Your task to perform on an android device: turn on improve location accuracy Image 0: 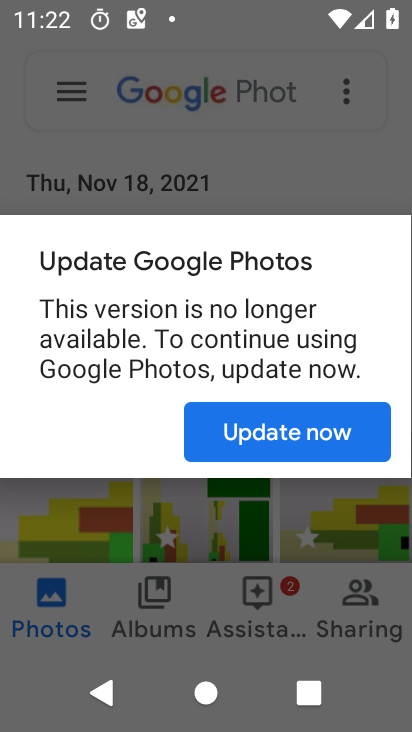
Step 0: press home button
Your task to perform on an android device: turn on improve location accuracy Image 1: 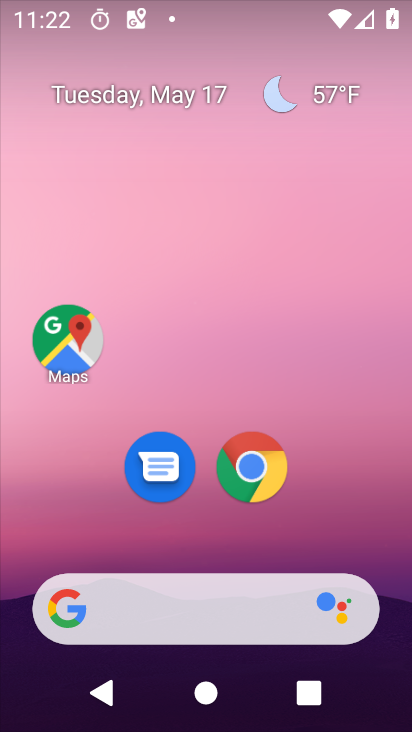
Step 1: drag from (196, 580) to (196, 250)
Your task to perform on an android device: turn on improve location accuracy Image 2: 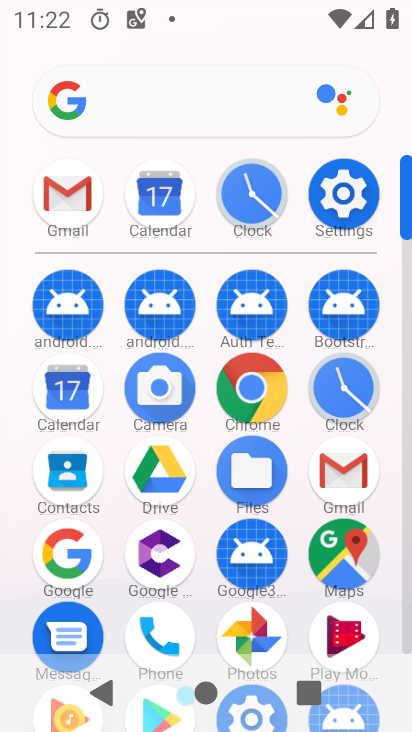
Step 2: click (324, 186)
Your task to perform on an android device: turn on improve location accuracy Image 3: 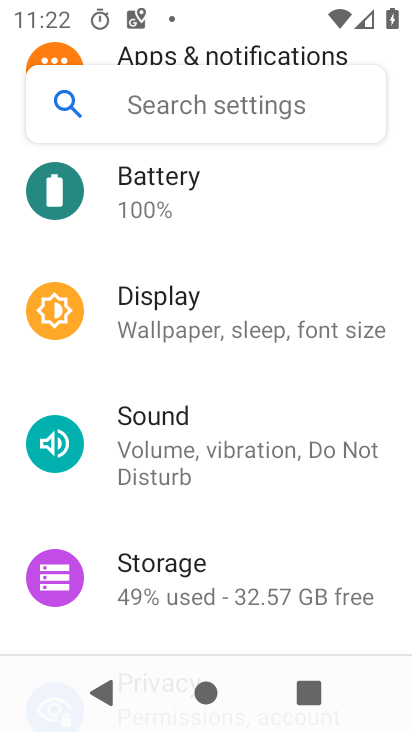
Step 3: drag from (198, 612) to (196, 273)
Your task to perform on an android device: turn on improve location accuracy Image 4: 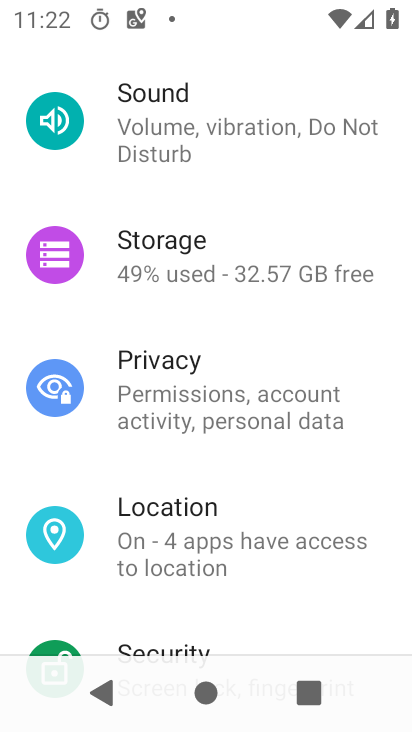
Step 4: drag from (155, 638) to (154, 304)
Your task to perform on an android device: turn on improve location accuracy Image 5: 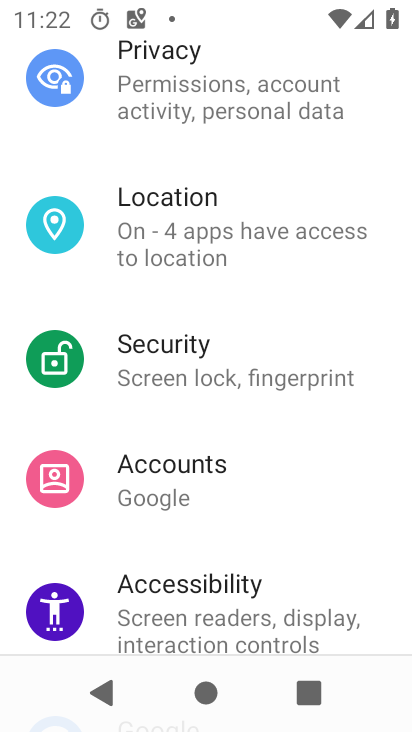
Step 5: drag from (173, 579) to (173, 337)
Your task to perform on an android device: turn on improve location accuracy Image 6: 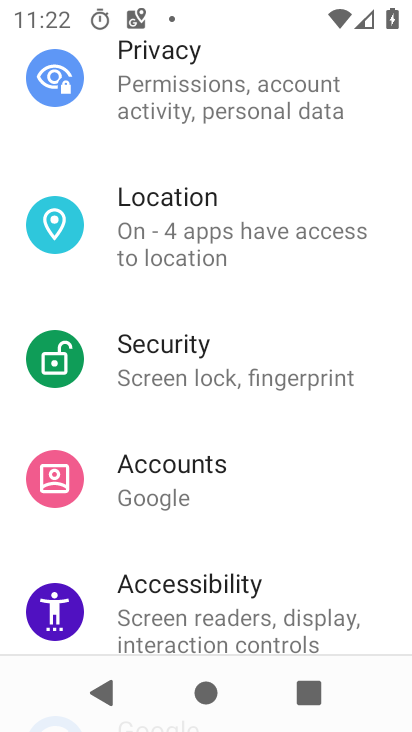
Step 6: click (212, 222)
Your task to perform on an android device: turn on improve location accuracy Image 7: 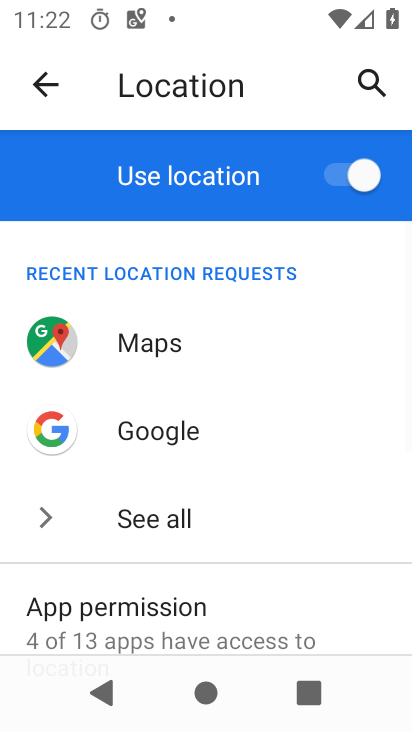
Step 7: drag from (223, 525) to (223, 196)
Your task to perform on an android device: turn on improve location accuracy Image 8: 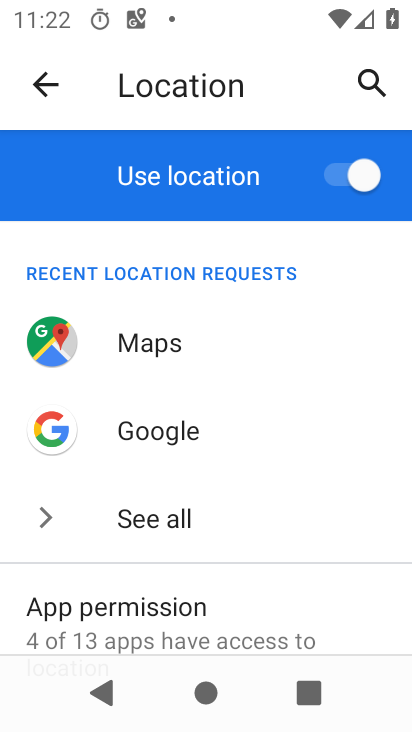
Step 8: drag from (174, 644) to (169, 312)
Your task to perform on an android device: turn on improve location accuracy Image 9: 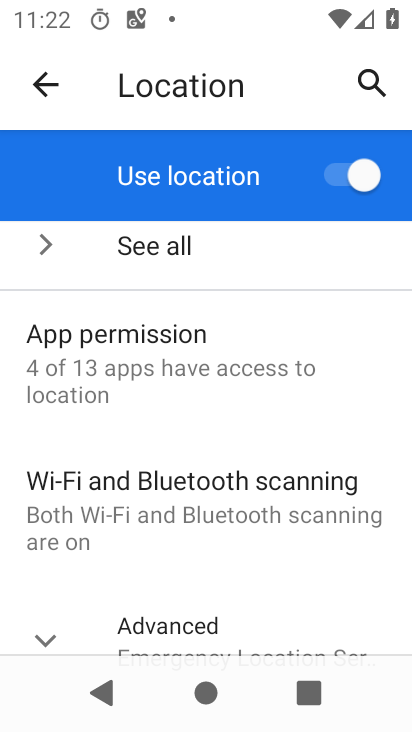
Step 9: click (189, 631)
Your task to perform on an android device: turn on improve location accuracy Image 10: 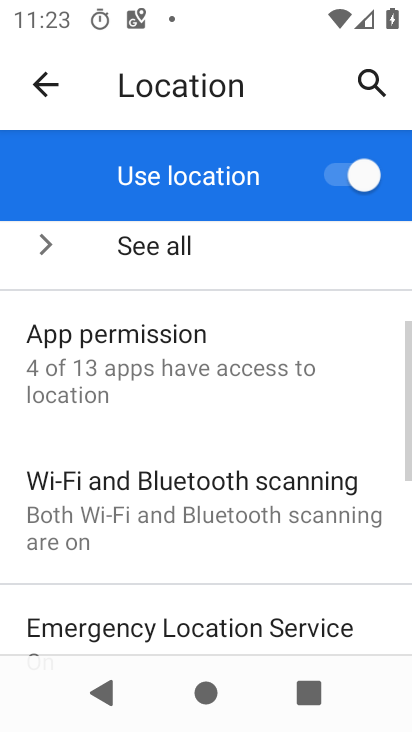
Step 10: drag from (260, 642) to (251, 338)
Your task to perform on an android device: turn on improve location accuracy Image 11: 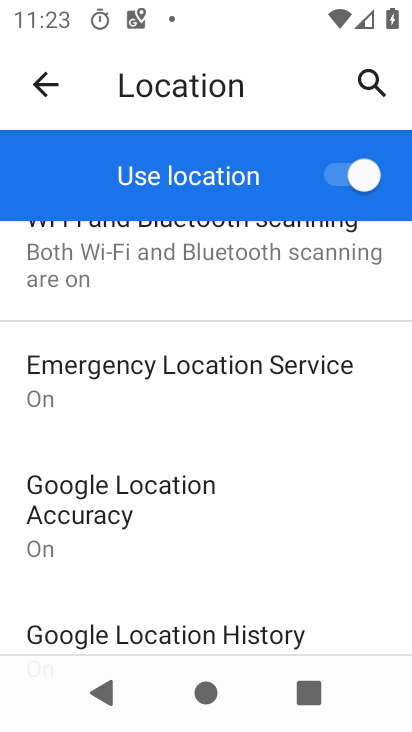
Step 11: drag from (209, 425) to (209, 311)
Your task to perform on an android device: turn on improve location accuracy Image 12: 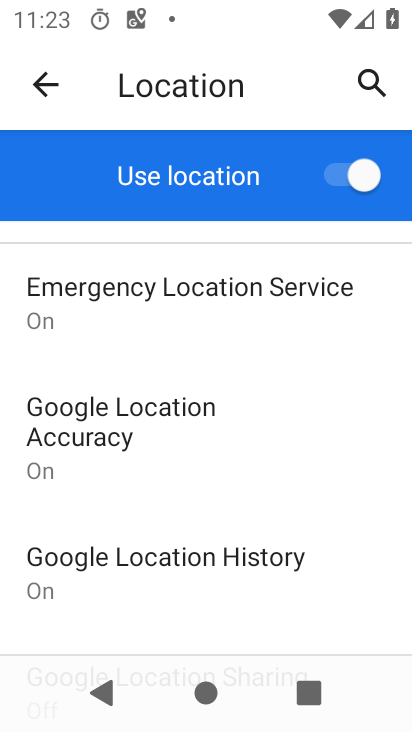
Step 12: click (129, 432)
Your task to perform on an android device: turn on improve location accuracy Image 13: 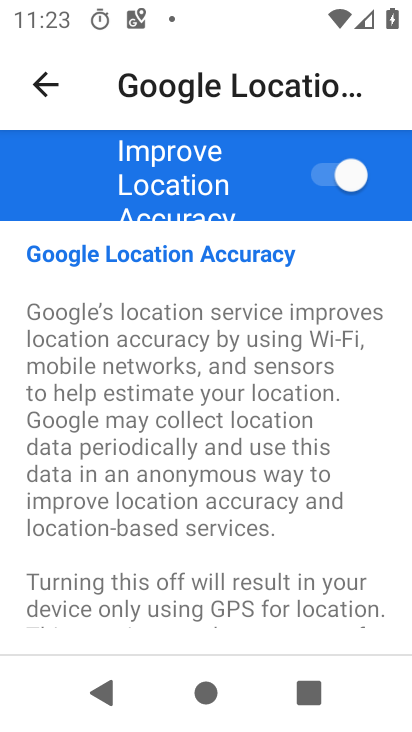
Step 13: task complete